Your task to perform on an android device: Open Youtube and go to the subscriptions tab Image 0: 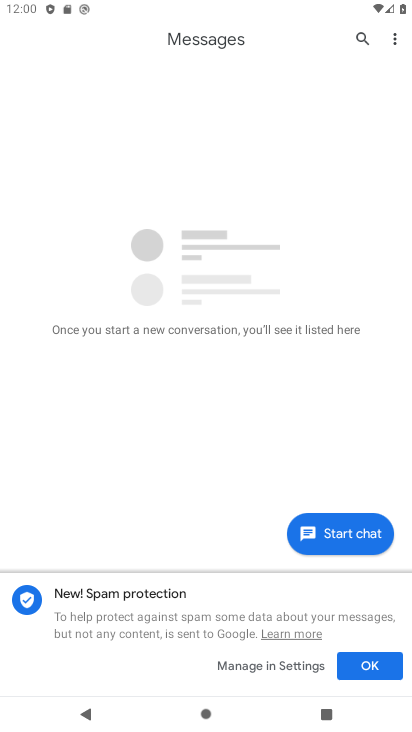
Step 0: press home button
Your task to perform on an android device: Open Youtube and go to the subscriptions tab Image 1: 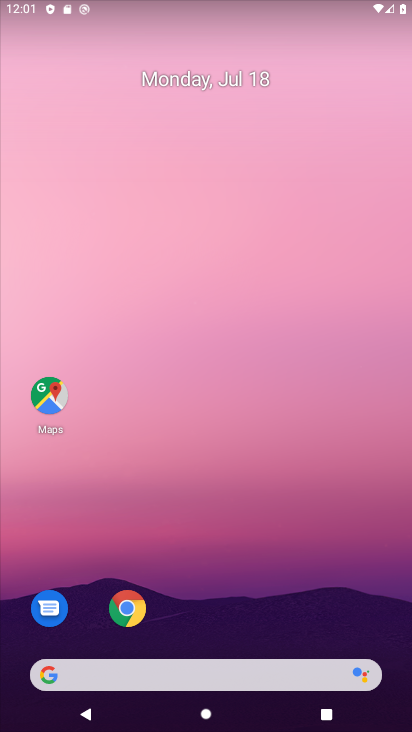
Step 1: drag from (264, 629) to (183, 224)
Your task to perform on an android device: Open Youtube and go to the subscriptions tab Image 2: 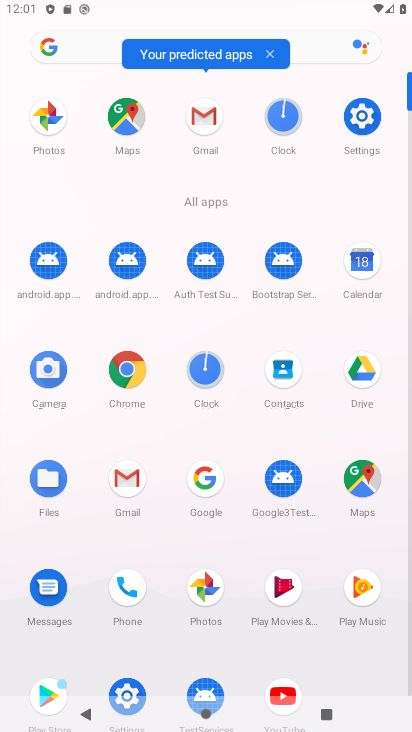
Step 2: click (291, 688)
Your task to perform on an android device: Open Youtube and go to the subscriptions tab Image 3: 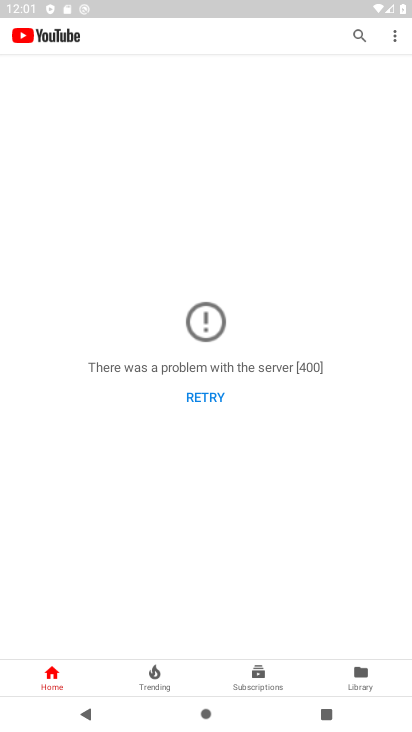
Step 3: click (276, 676)
Your task to perform on an android device: Open Youtube and go to the subscriptions tab Image 4: 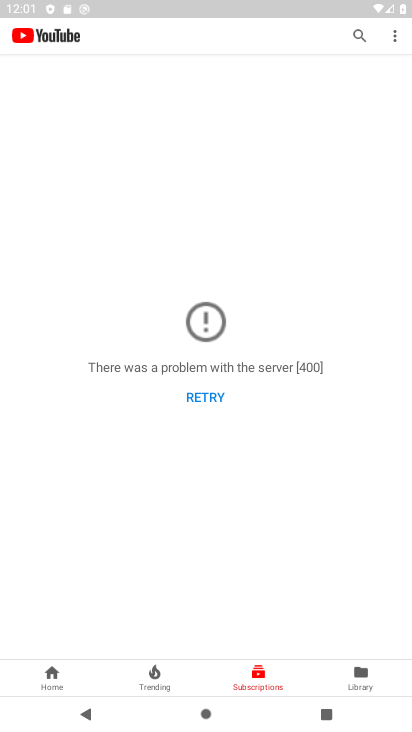
Step 4: task complete